Your task to perform on an android device: set default search engine in the chrome app Image 0: 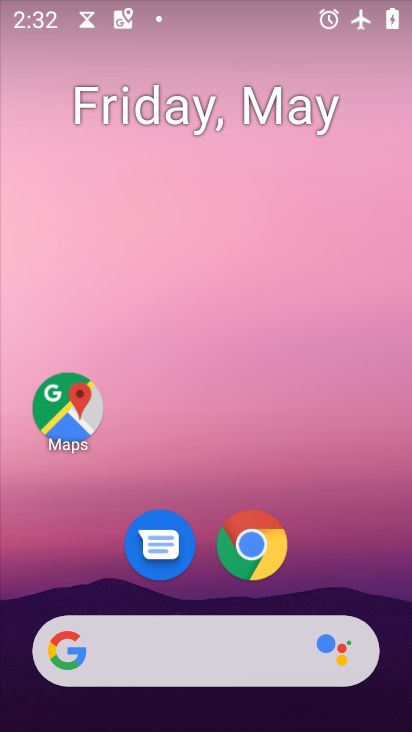
Step 0: click (251, 548)
Your task to perform on an android device: set default search engine in the chrome app Image 1: 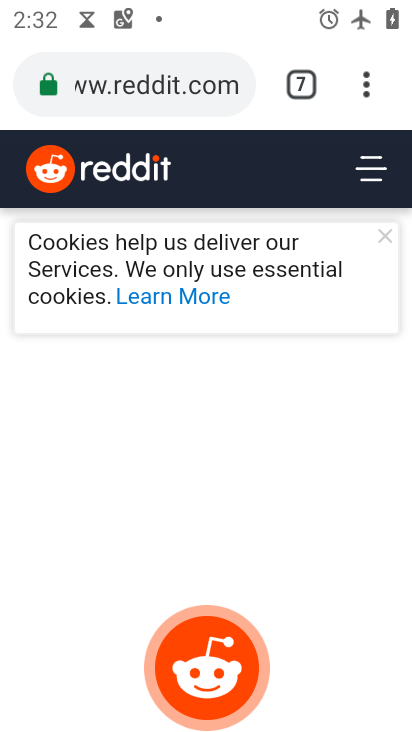
Step 1: click (378, 86)
Your task to perform on an android device: set default search engine in the chrome app Image 2: 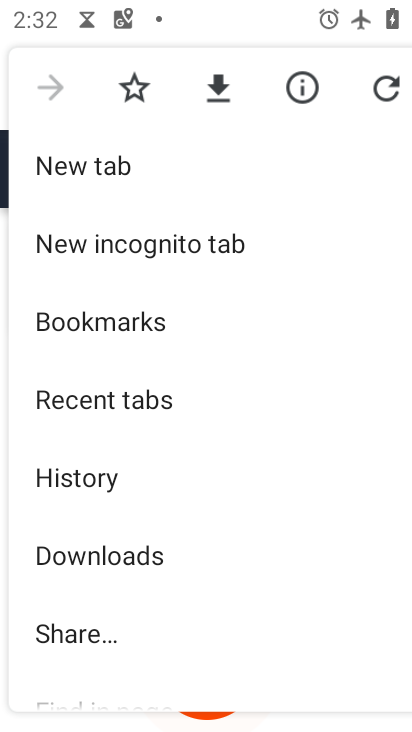
Step 2: drag from (171, 581) to (192, 290)
Your task to perform on an android device: set default search engine in the chrome app Image 3: 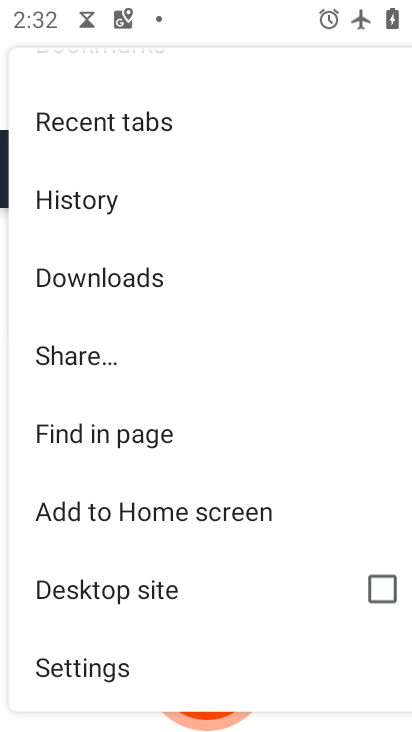
Step 3: click (105, 660)
Your task to perform on an android device: set default search engine in the chrome app Image 4: 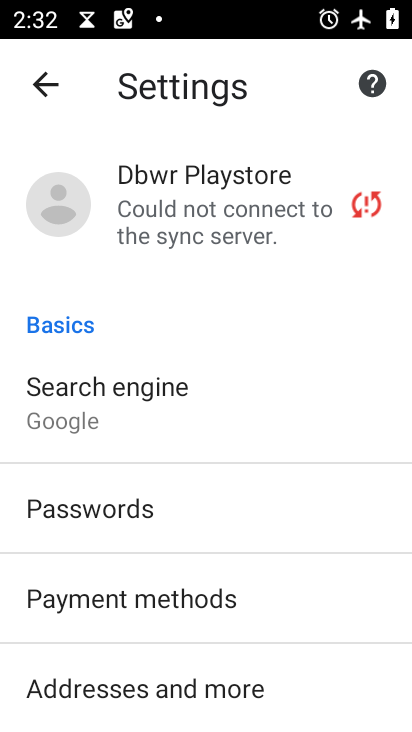
Step 4: click (176, 412)
Your task to perform on an android device: set default search engine in the chrome app Image 5: 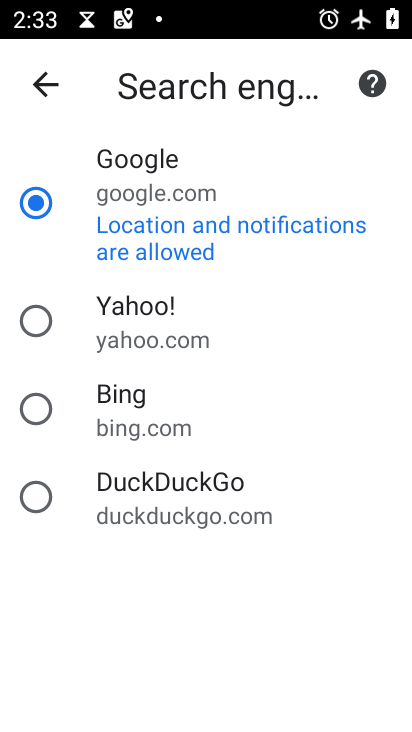
Step 5: task complete